Your task to perform on an android device: Do I have any events this weekend? Image 0: 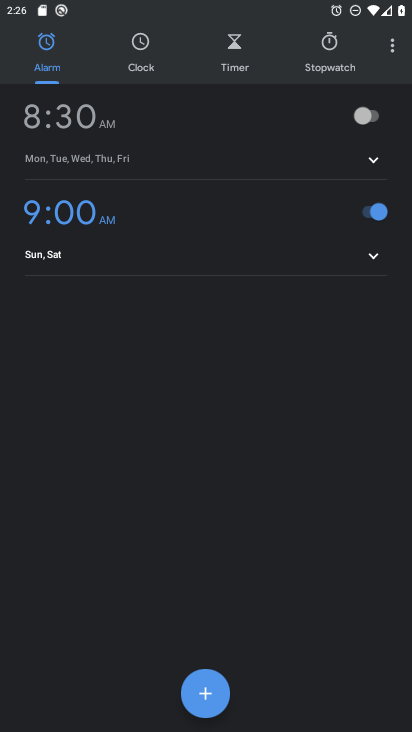
Step 0: press back button
Your task to perform on an android device: Do I have any events this weekend? Image 1: 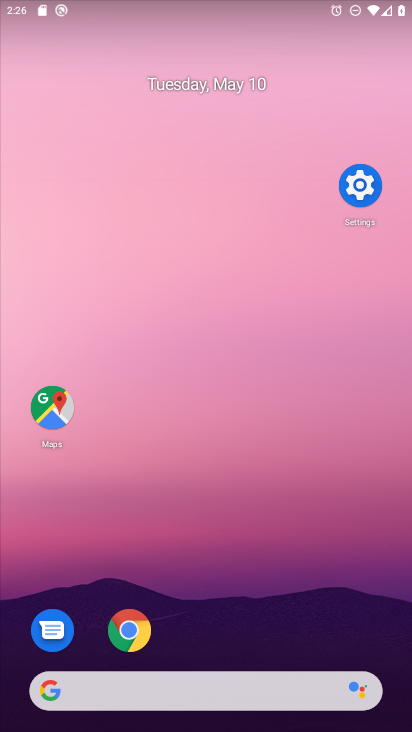
Step 1: drag from (342, 650) to (331, 63)
Your task to perform on an android device: Do I have any events this weekend? Image 2: 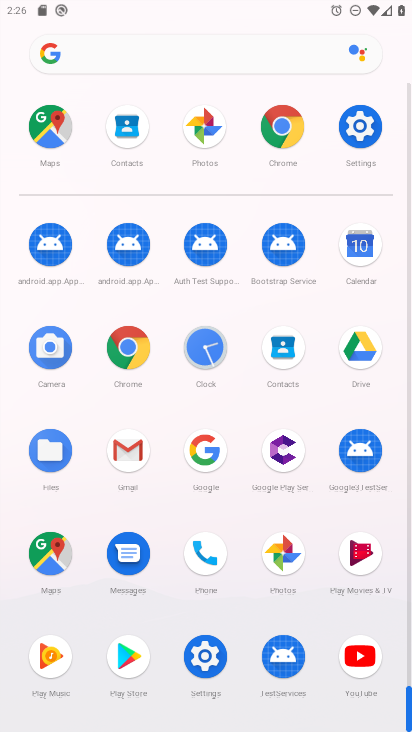
Step 2: click (362, 240)
Your task to perform on an android device: Do I have any events this weekend? Image 3: 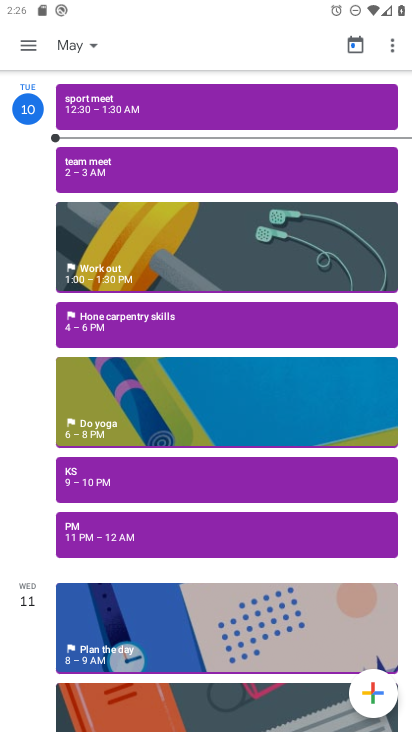
Step 3: click (93, 46)
Your task to perform on an android device: Do I have any events this weekend? Image 4: 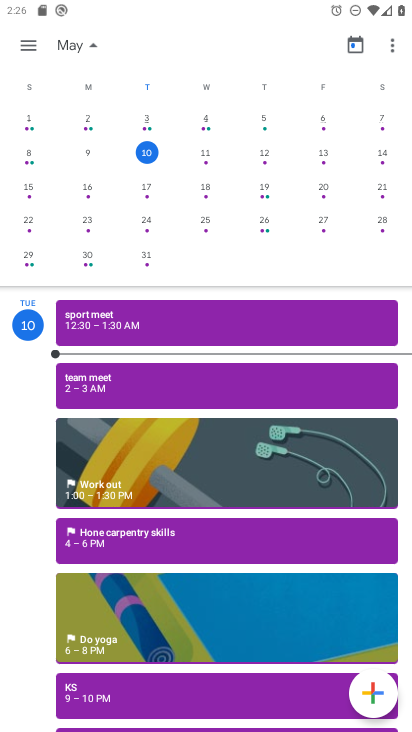
Step 4: click (150, 218)
Your task to perform on an android device: Do I have any events this weekend? Image 5: 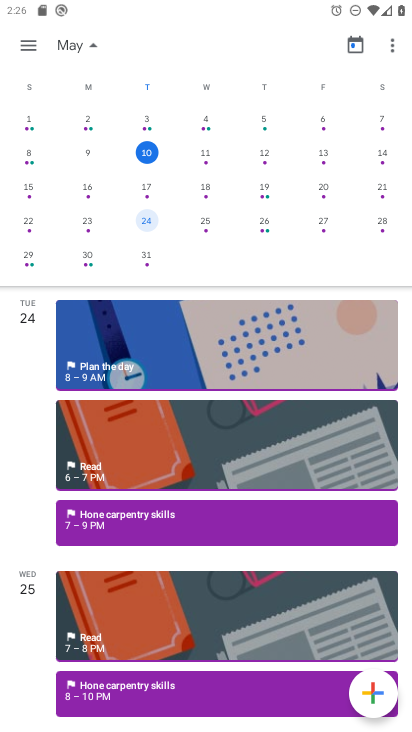
Step 5: drag from (109, 603) to (41, 213)
Your task to perform on an android device: Do I have any events this weekend? Image 6: 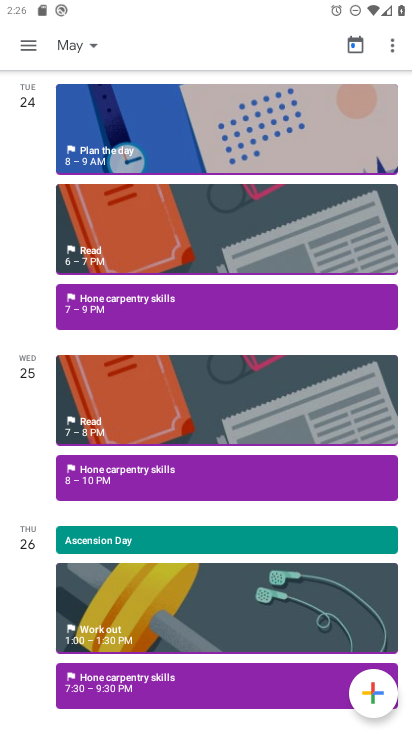
Step 6: drag from (130, 521) to (164, 267)
Your task to perform on an android device: Do I have any events this weekend? Image 7: 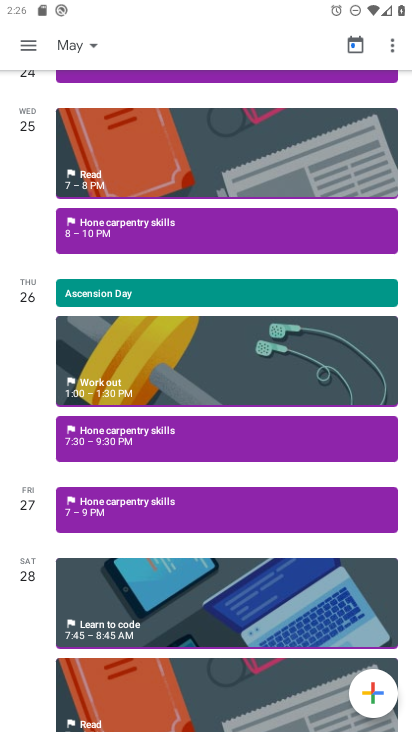
Step 7: drag from (166, 323) to (191, 536)
Your task to perform on an android device: Do I have any events this weekend? Image 8: 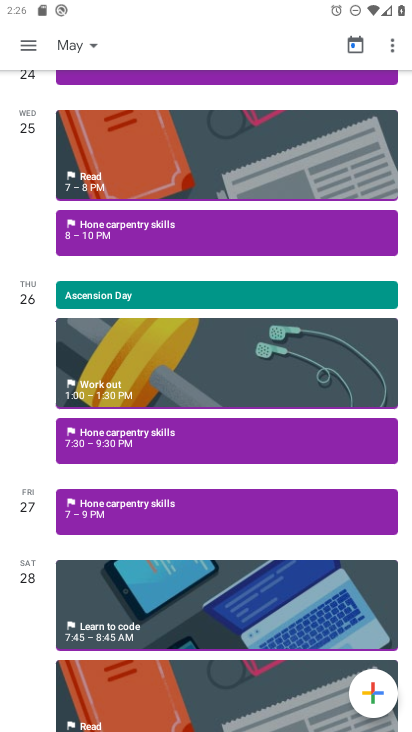
Step 8: drag from (193, 314) to (214, 550)
Your task to perform on an android device: Do I have any events this weekend? Image 9: 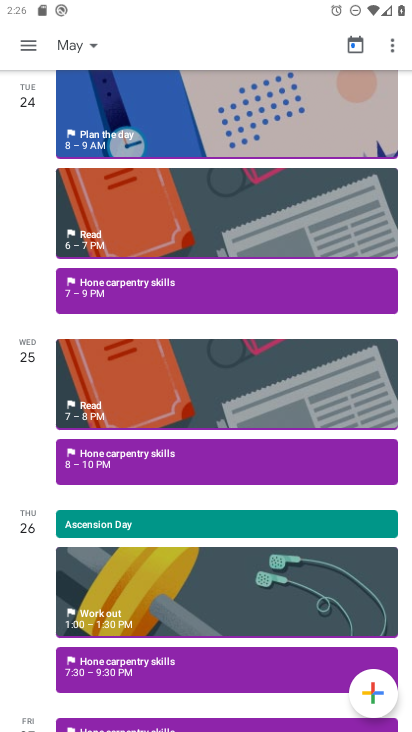
Step 9: drag from (182, 338) to (186, 486)
Your task to perform on an android device: Do I have any events this weekend? Image 10: 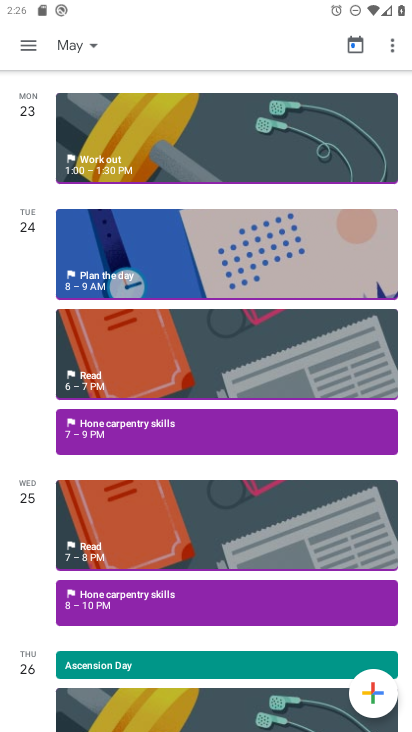
Step 10: drag from (161, 269) to (192, 542)
Your task to perform on an android device: Do I have any events this weekend? Image 11: 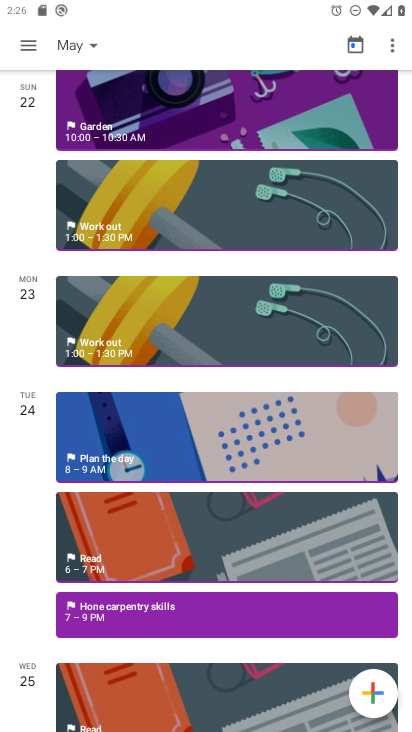
Step 11: drag from (204, 537) to (205, 595)
Your task to perform on an android device: Do I have any events this weekend? Image 12: 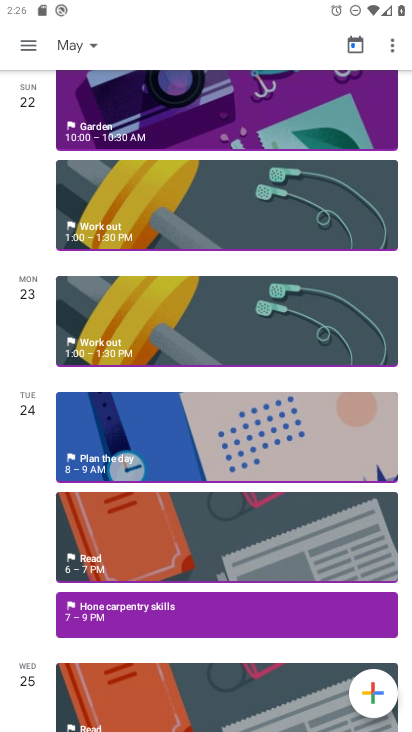
Step 12: drag from (203, 316) to (218, 615)
Your task to perform on an android device: Do I have any events this weekend? Image 13: 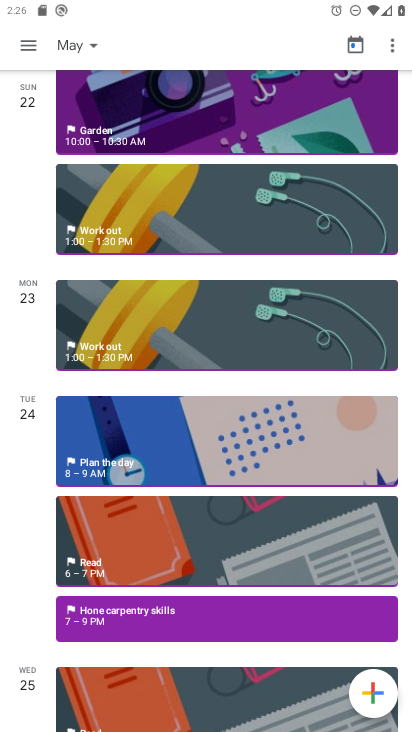
Step 13: drag from (219, 218) to (251, 612)
Your task to perform on an android device: Do I have any events this weekend? Image 14: 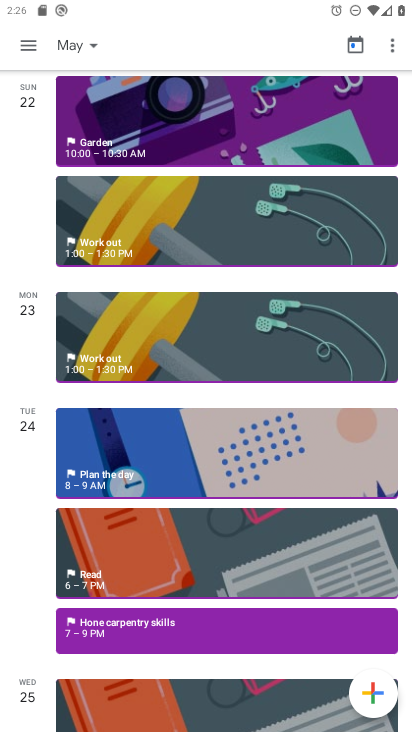
Step 14: drag from (123, 139) to (123, 290)
Your task to perform on an android device: Do I have any events this weekend? Image 15: 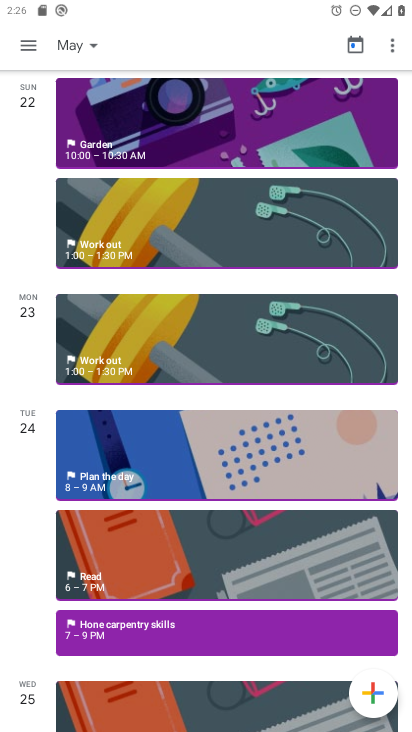
Step 15: click (97, 49)
Your task to perform on an android device: Do I have any events this weekend? Image 16: 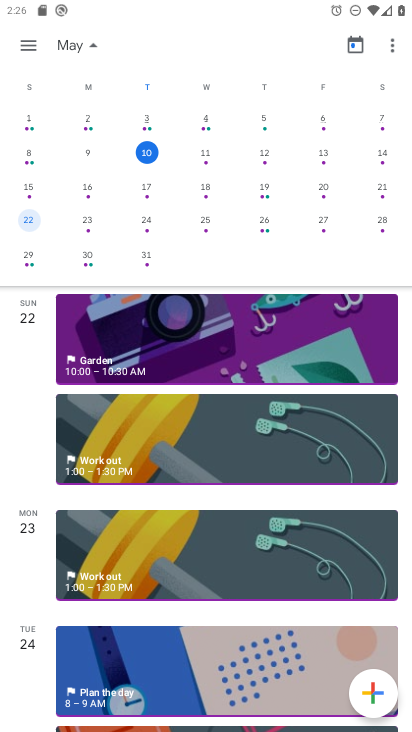
Step 16: click (90, 43)
Your task to perform on an android device: Do I have any events this weekend? Image 17: 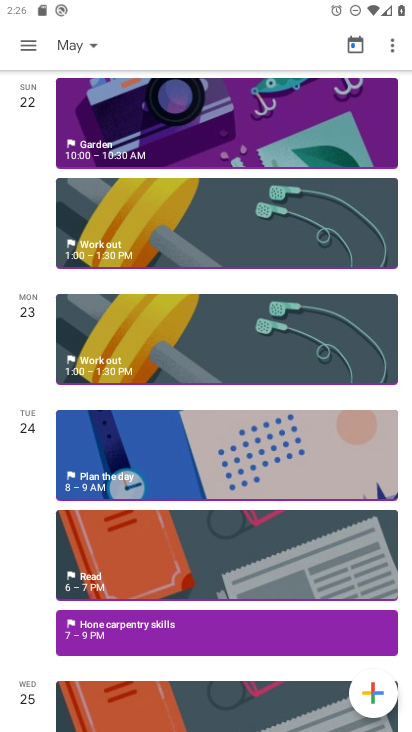
Step 17: click (93, 42)
Your task to perform on an android device: Do I have any events this weekend? Image 18: 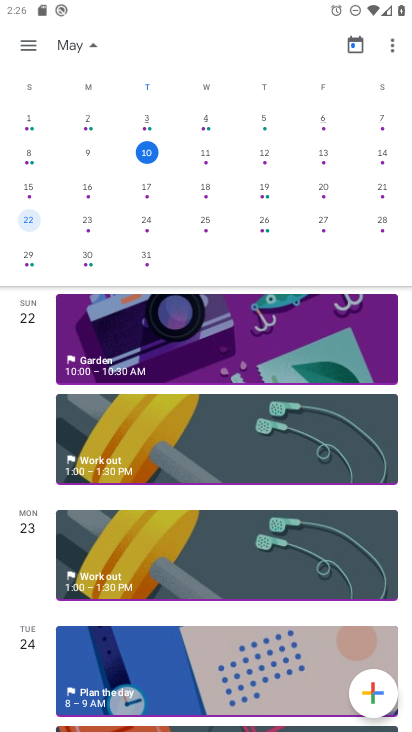
Step 18: click (318, 155)
Your task to perform on an android device: Do I have any events this weekend? Image 19: 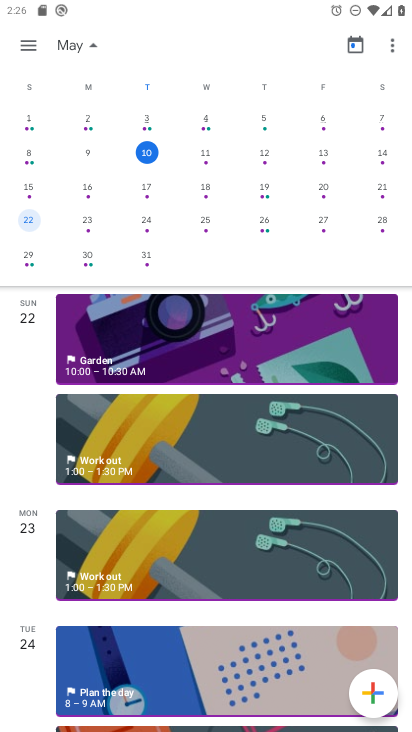
Step 19: click (318, 155)
Your task to perform on an android device: Do I have any events this weekend? Image 20: 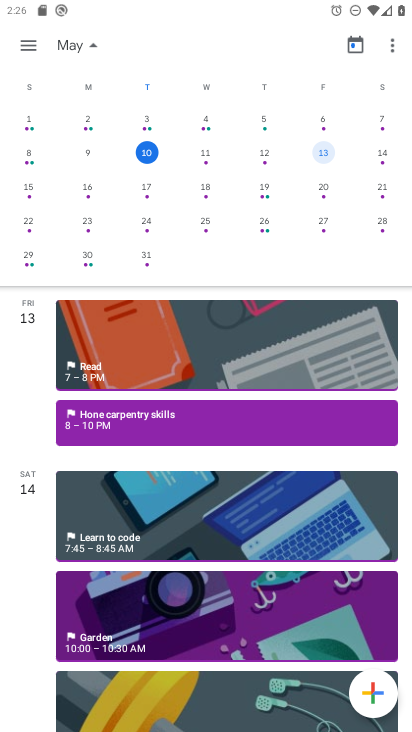
Step 20: click (108, 493)
Your task to perform on an android device: Do I have any events this weekend? Image 21: 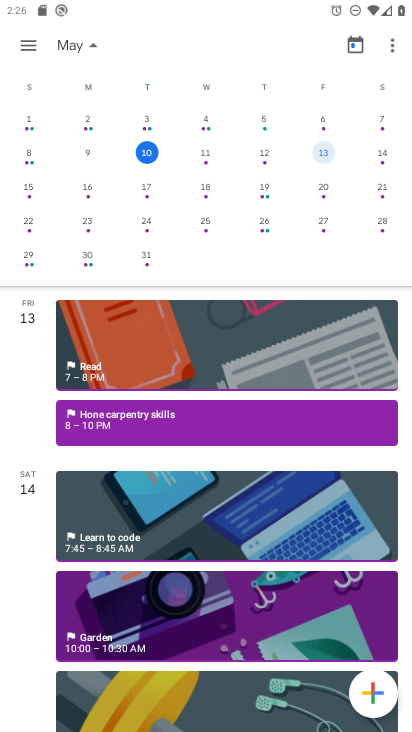
Step 21: click (132, 506)
Your task to perform on an android device: Do I have any events this weekend? Image 22: 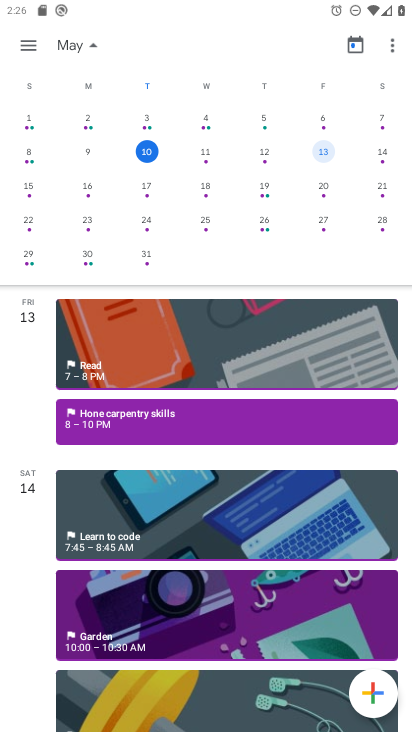
Step 22: click (134, 505)
Your task to perform on an android device: Do I have any events this weekend? Image 23: 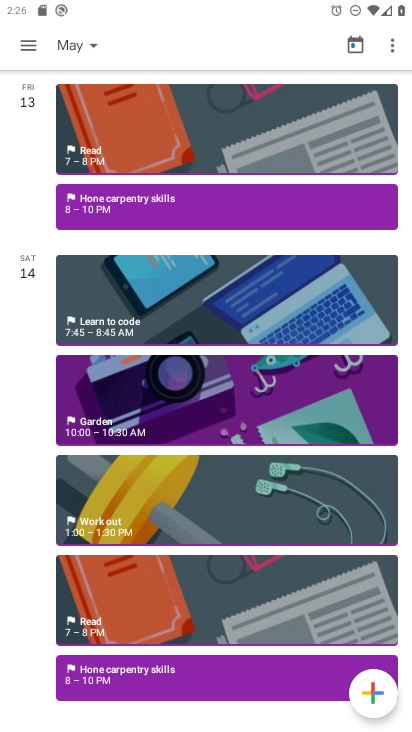
Step 23: task complete